Your task to perform on an android device: Turn on the flashlight Image 0: 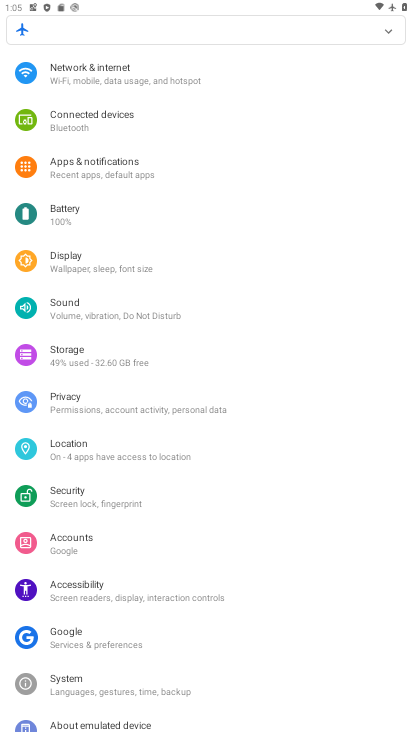
Step 0: task impossible